Your task to perform on an android device: Open Reddit.com Image 0: 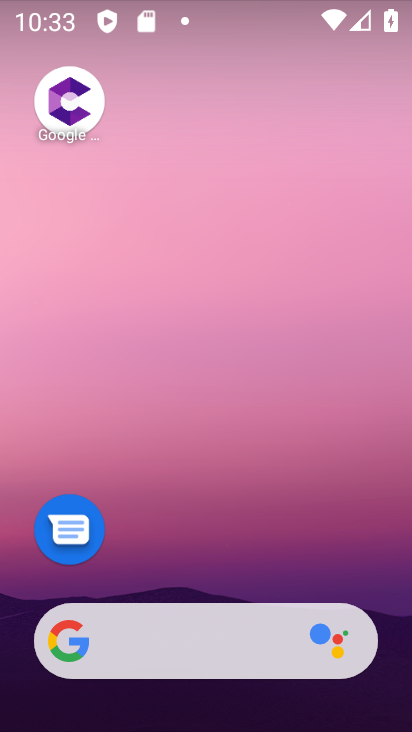
Step 0: drag from (199, 577) to (146, 9)
Your task to perform on an android device: Open Reddit.com Image 1: 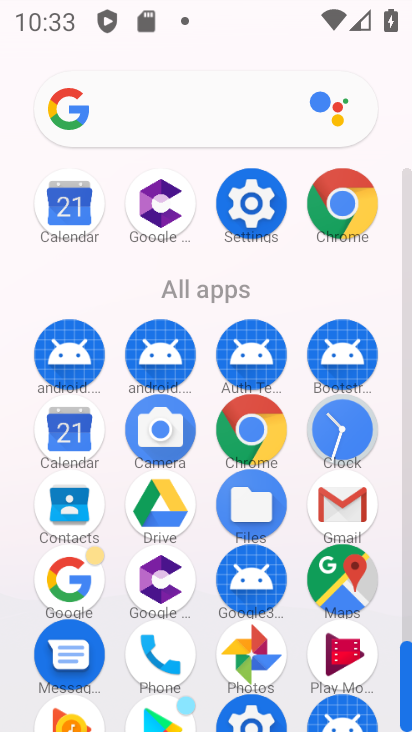
Step 1: click (237, 426)
Your task to perform on an android device: Open Reddit.com Image 2: 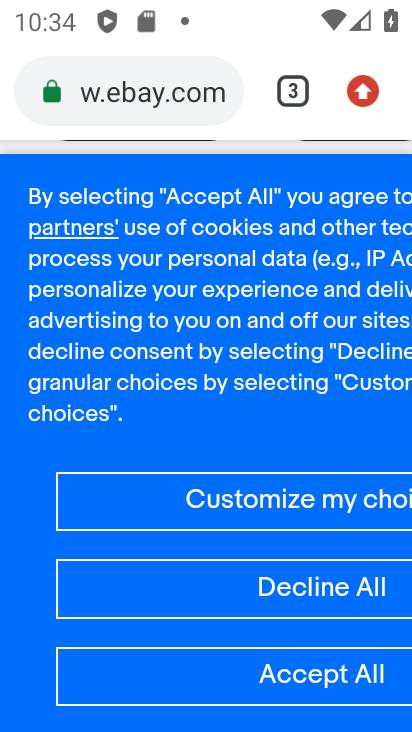
Step 2: click (286, 88)
Your task to perform on an android device: Open Reddit.com Image 3: 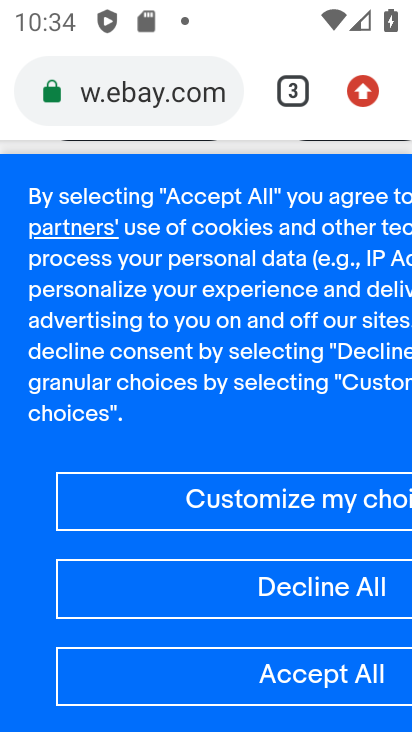
Step 3: click (280, 94)
Your task to perform on an android device: Open Reddit.com Image 4: 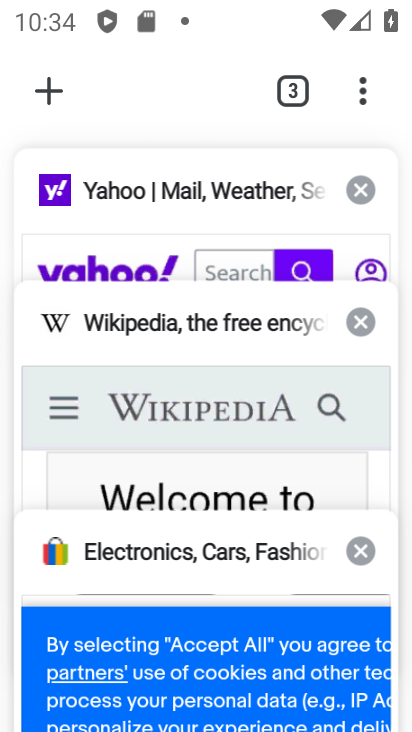
Step 4: click (39, 74)
Your task to perform on an android device: Open Reddit.com Image 5: 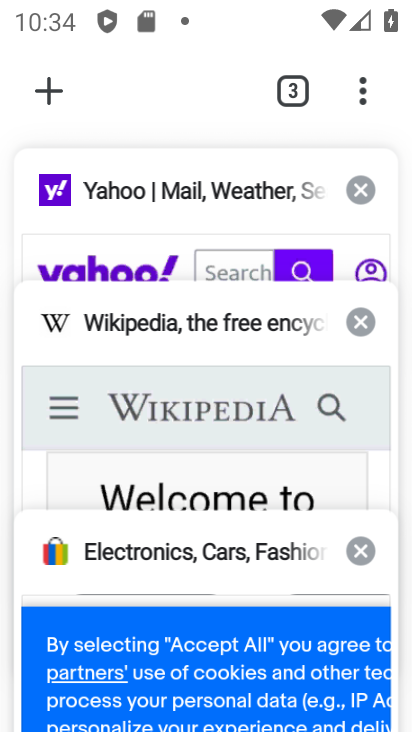
Step 5: click (37, 83)
Your task to perform on an android device: Open Reddit.com Image 6: 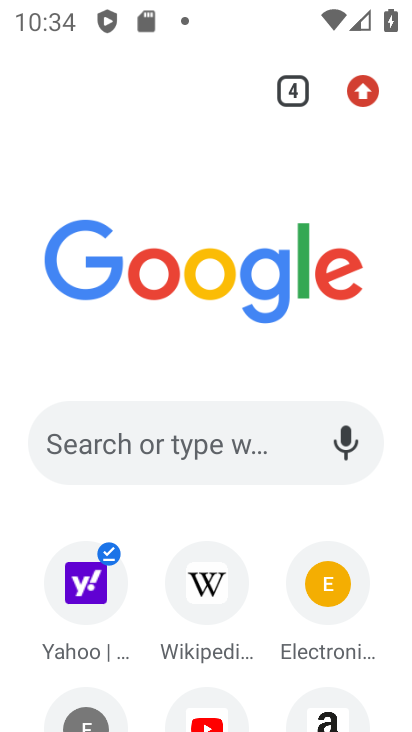
Step 6: click (153, 443)
Your task to perform on an android device: Open Reddit.com Image 7: 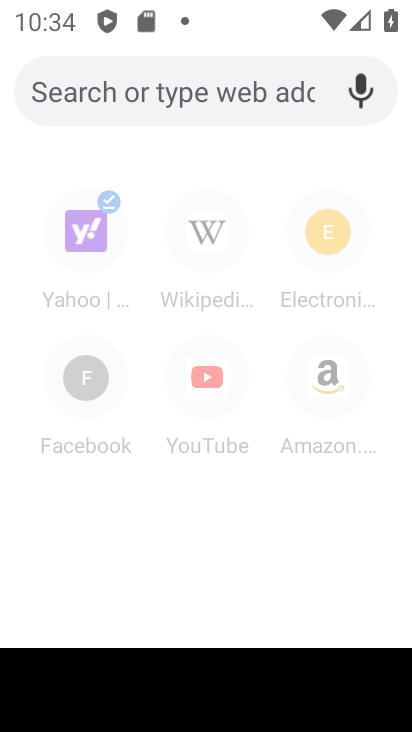
Step 7: type "reddit"
Your task to perform on an android device: Open Reddit.com Image 8: 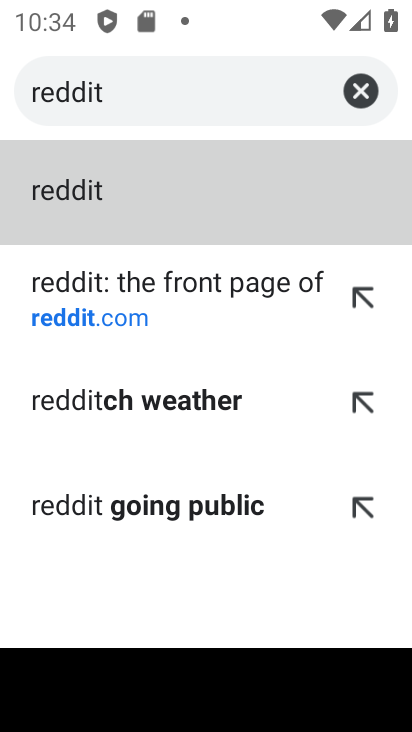
Step 8: click (144, 297)
Your task to perform on an android device: Open Reddit.com Image 9: 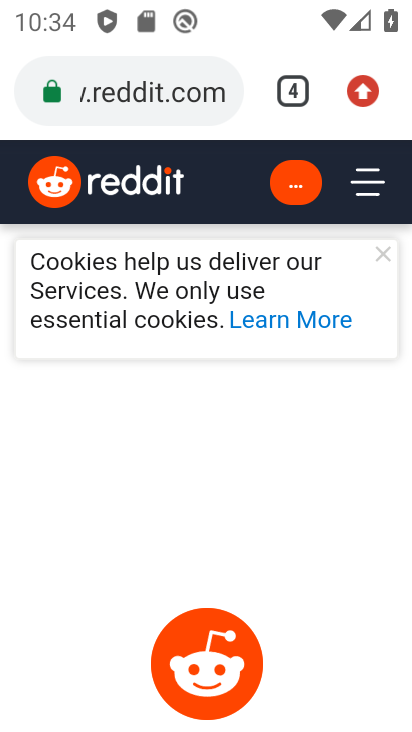
Step 9: task complete